Your task to perform on an android device: open chrome and create a bookmark for the current page Image 0: 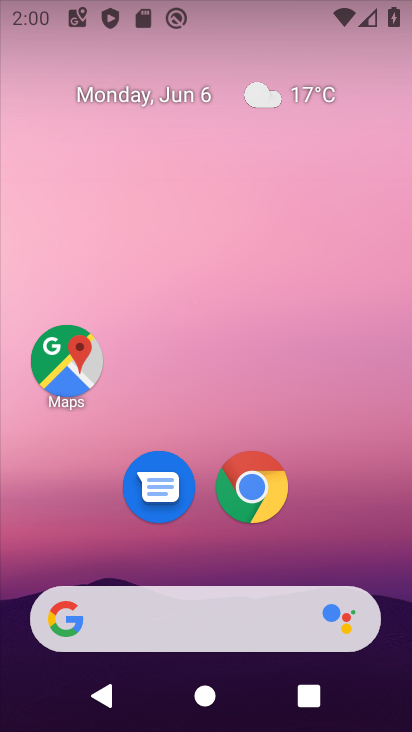
Step 0: click (270, 487)
Your task to perform on an android device: open chrome and create a bookmark for the current page Image 1: 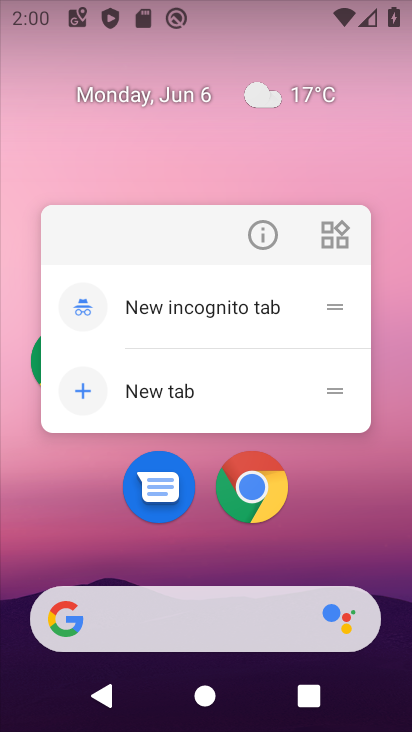
Step 1: click (257, 496)
Your task to perform on an android device: open chrome and create a bookmark for the current page Image 2: 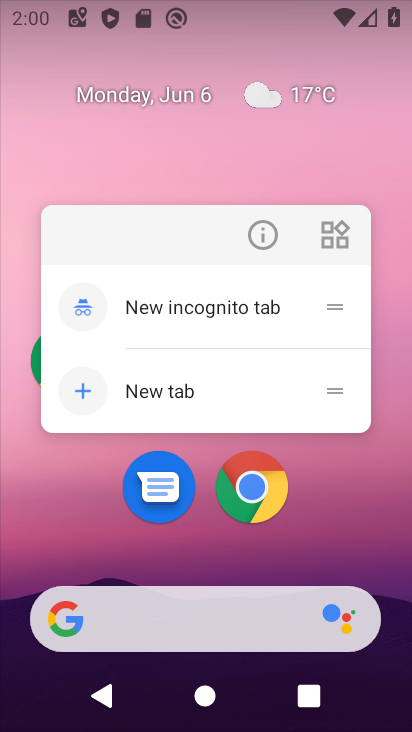
Step 2: click (261, 512)
Your task to perform on an android device: open chrome and create a bookmark for the current page Image 3: 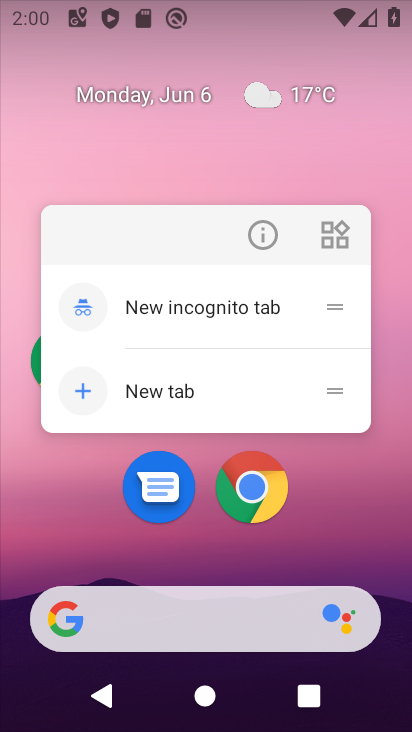
Step 3: click (267, 507)
Your task to perform on an android device: open chrome and create a bookmark for the current page Image 4: 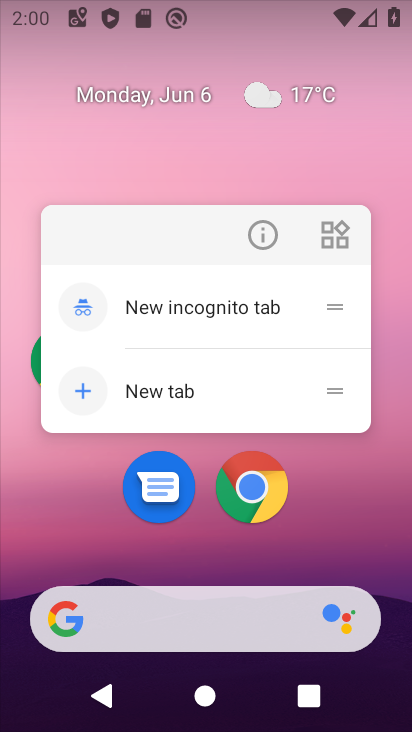
Step 4: click (267, 507)
Your task to perform on an android device: open chrome and create a bookmark for the current page Image 5: 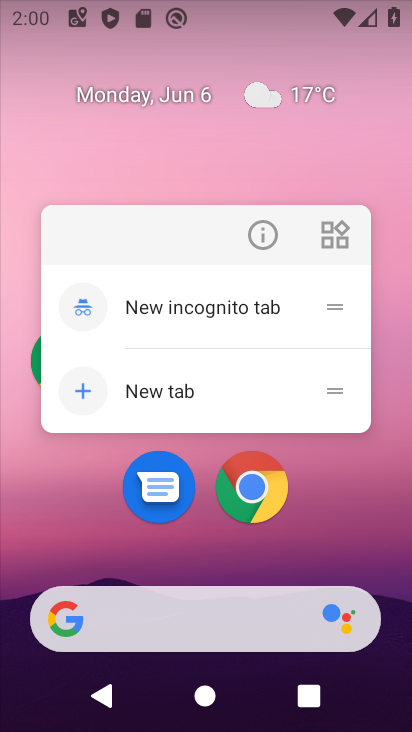
Step 5: click (267, 507)
Your task to perform on an android device: open chrome and create a bookmark for the current page Image 6: 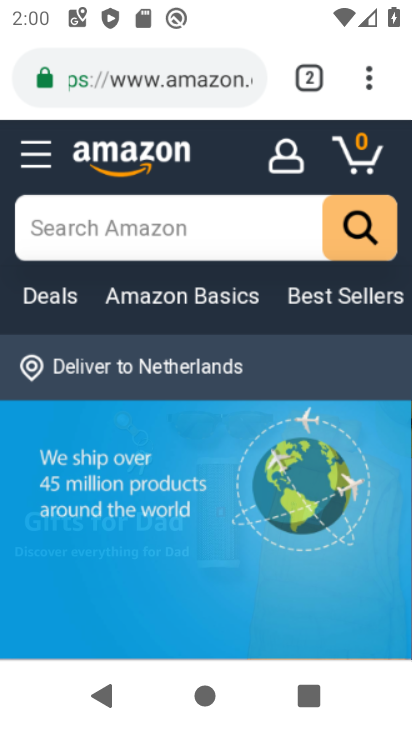
Step 6: task complete